Your task to perform on an android device: toggle data saver in the chrome app Image 0: 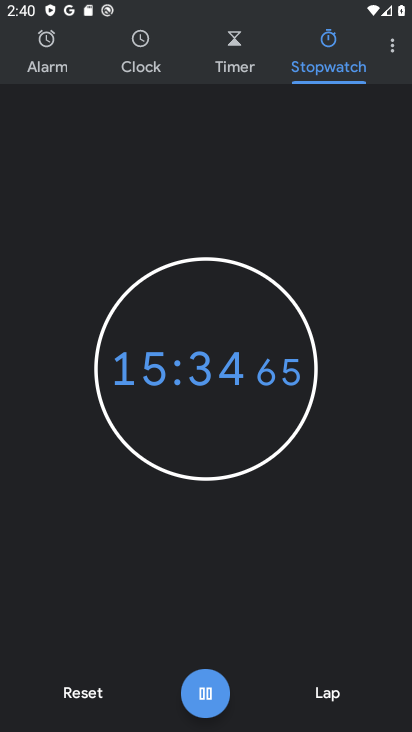
Step 0: press home button
Your task to perform on an android device: toggle data saver in the chrome app Image 1: 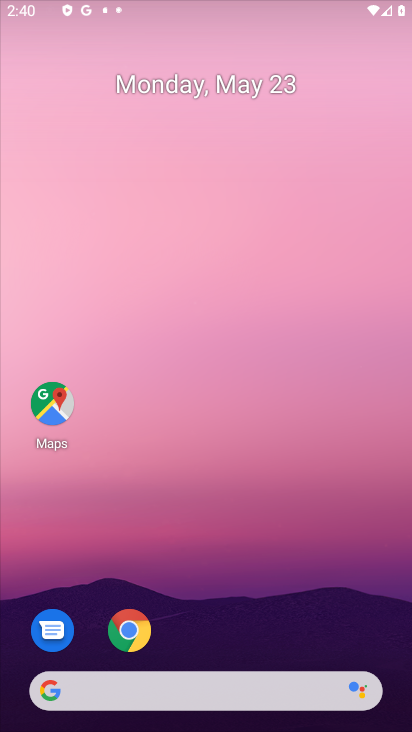
Step 1: drag from (334, 619) to (350, 85)
Your task to perform on an android device: toggle data saver in the chrome app Image 2: 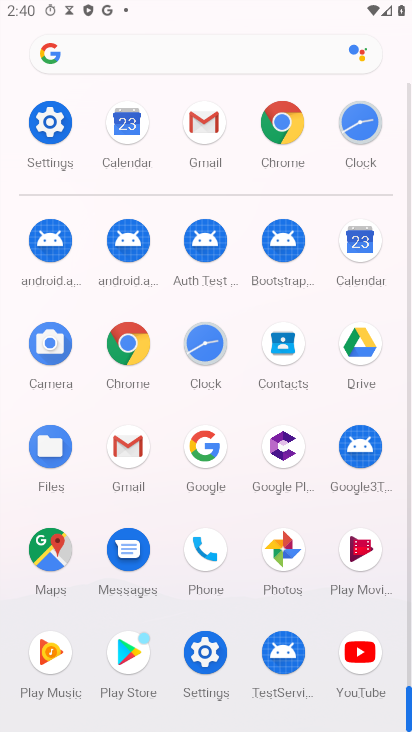
Step 2: click (284, 135)
Your task to perform on an android device: toggle data saver in the chrome app Image 3: 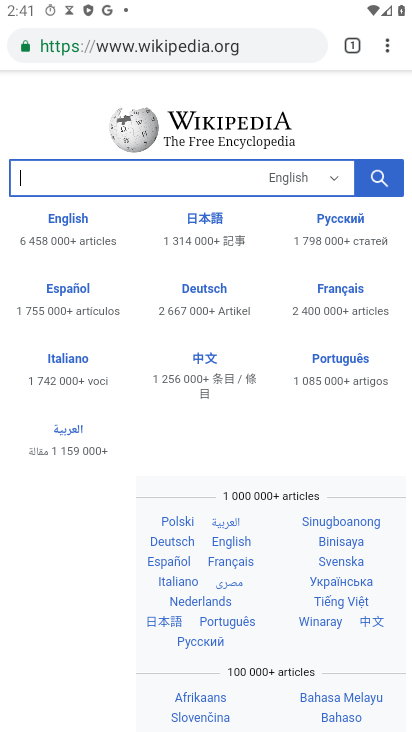
Step 3: drag from (382, 49) to (269, 553)
Your task to perform on an android device: toggle data saver in the chrome app Image 4: 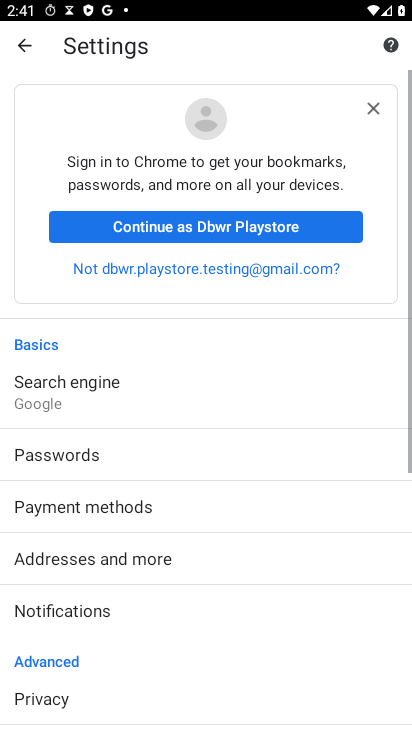
Step 4: drag from (259, 569) to (227, 140)
Your task to perform on an android device: toggle data saver in the chrome app Image 5: 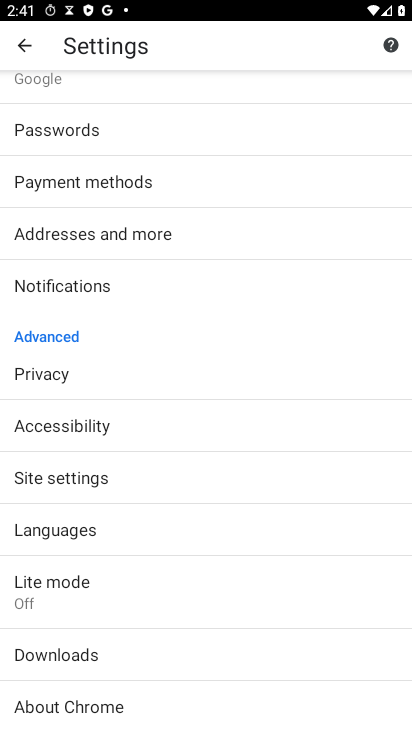
Step 5: drag from (226, 621) to (179, 204)
Your task to perform on an android device: toggle data saver in the chrome app Image 6: 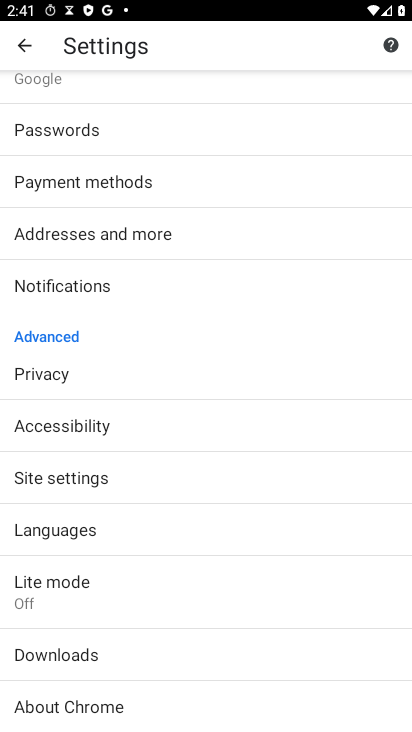
Step 6: drag from (226, 545) to (218, 136)
Your task to perform on an android device: toggle data saver in the chrome app Image 7: 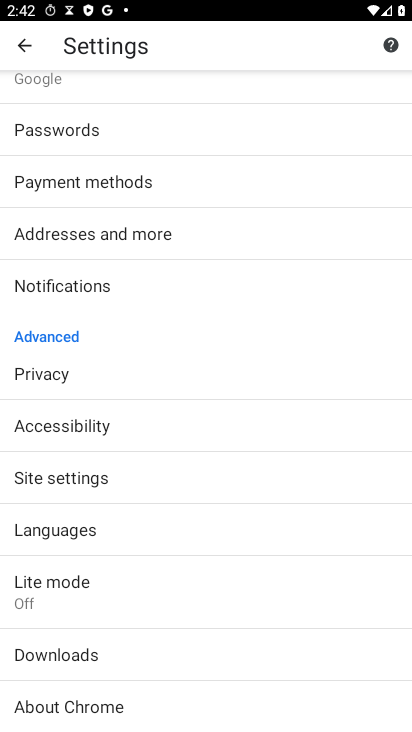
Step 7: click (88, 605)
Your task to perform on an android device: toggle data saver in the chrome app Image 8: 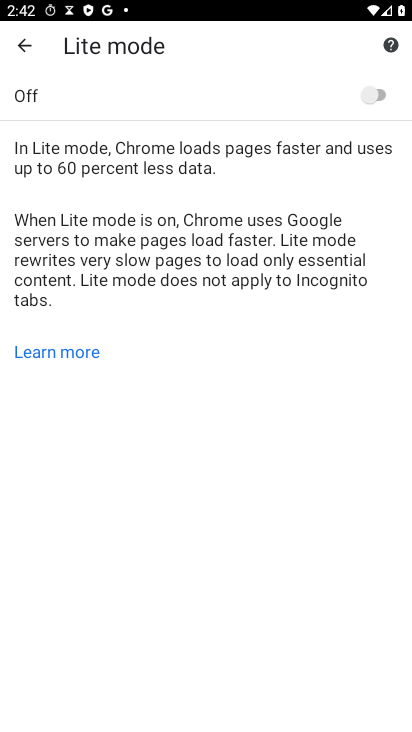
Step 8: click (374, 93)
Your task to perform on an android device: toggle data saver in the chrome app Image 9: 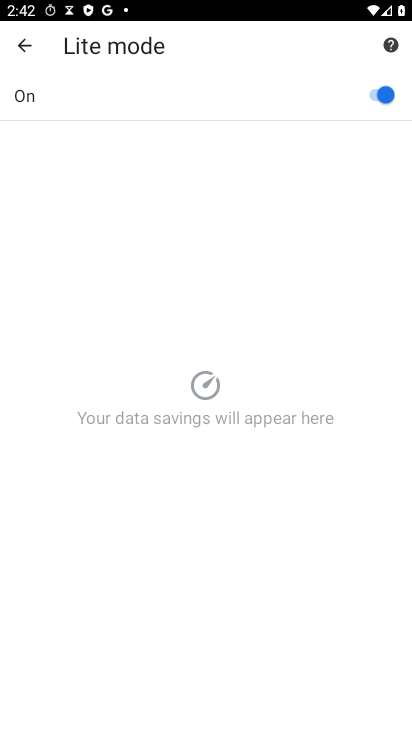
Step 9: task complete